Your task to perform on an android device: Open calendar and show me the fourth week of next month Image 0: 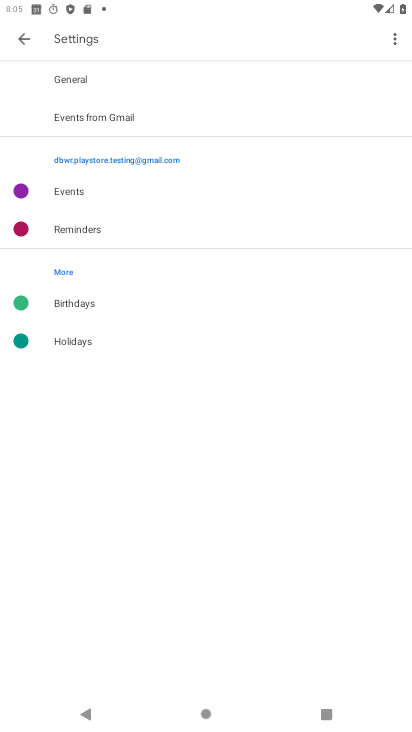
Step 0: press home button
Your task to perform on an android device: Open calendar and show me the fourth week of next month Image 1: 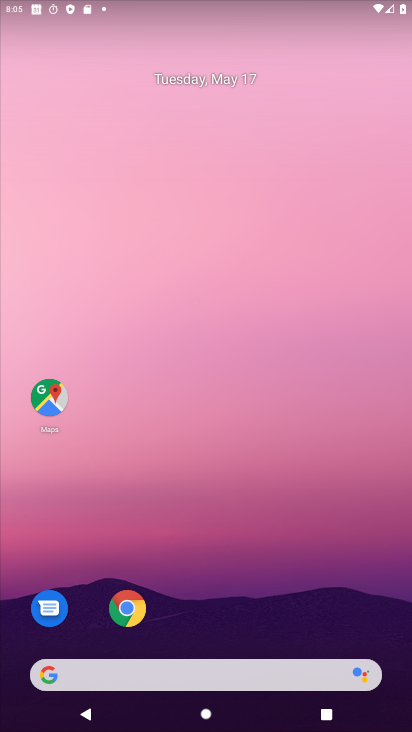
Step 1: drag from (361, 586) to (300, 93)
Your task to perform on an android device: Open calendar and show me the fourth week of next month Image 2: 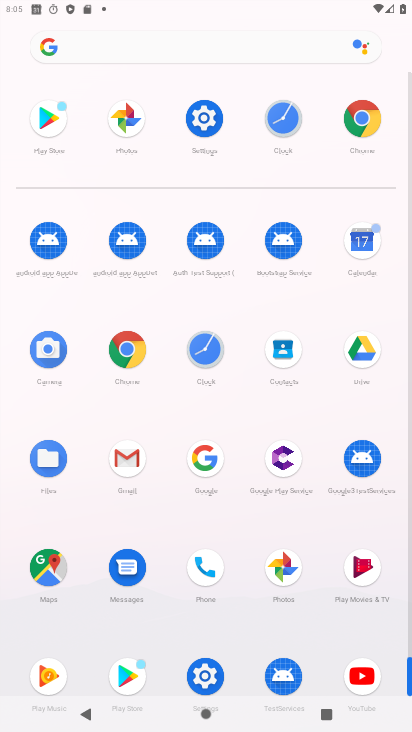
Step 2: click (369, 249)
Your task to perform on an android device: Open calendar and show me the fourth week of next month Image 3: 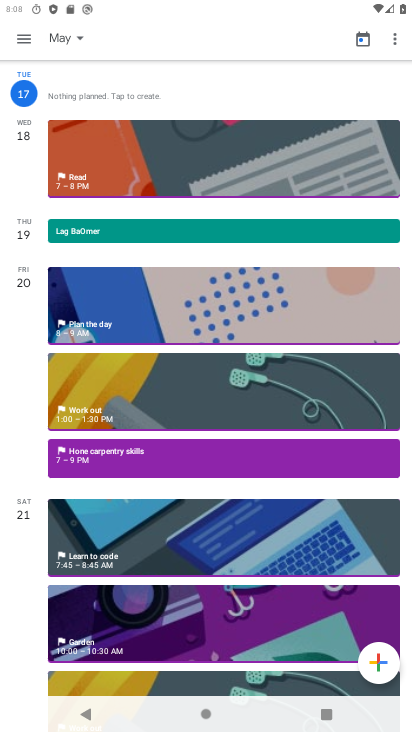
Step 3: click (58, 31)
Your task to perform on an android device: Open calendar and show me the fourth week of next month Image 4: 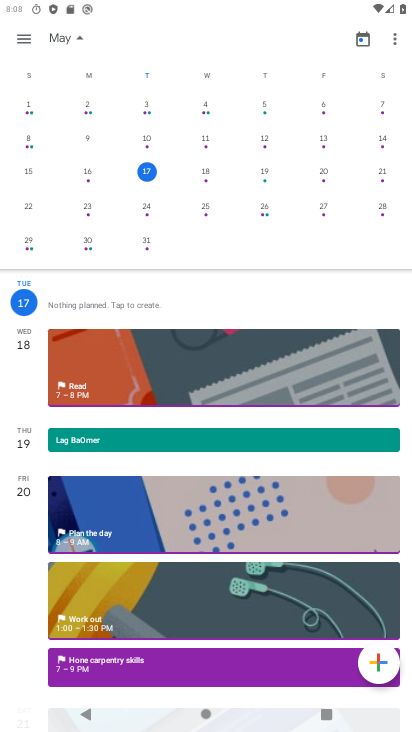
Step 4: drag from (374, 120) to (38, 126)
Your task to perform on an android device: Open calendar and show me the fourth week of next month Image 5: 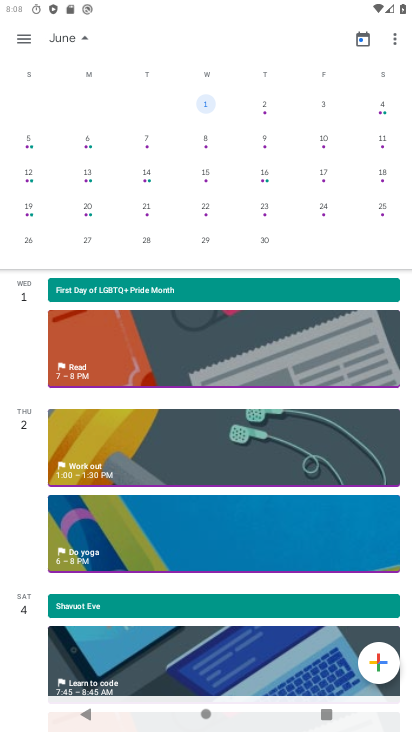
Step 5: click (209, 105)
Your task to perform on an android device: Open calendar and show me the fourth week of next month Image 6: 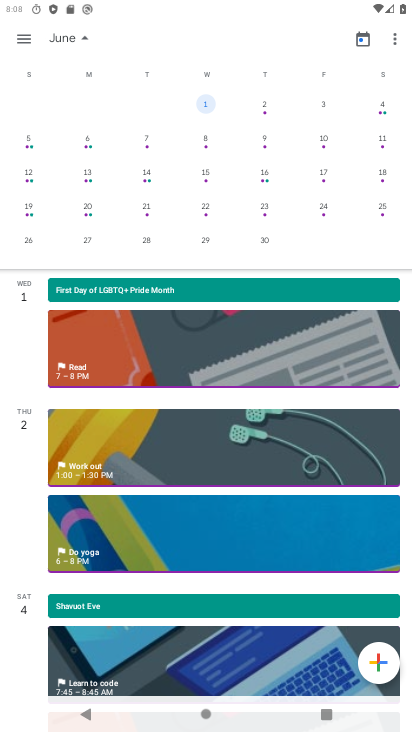
Step 6: task complete